Your task to perform on an android device: turn on bluetooth scan Image 0: 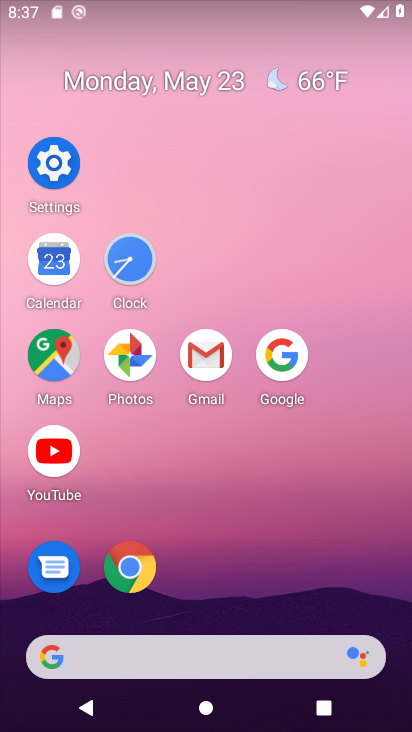
Step 0: click (34, 174)
Your task to perform on an android device: turn on bluetooth scan Image 1: 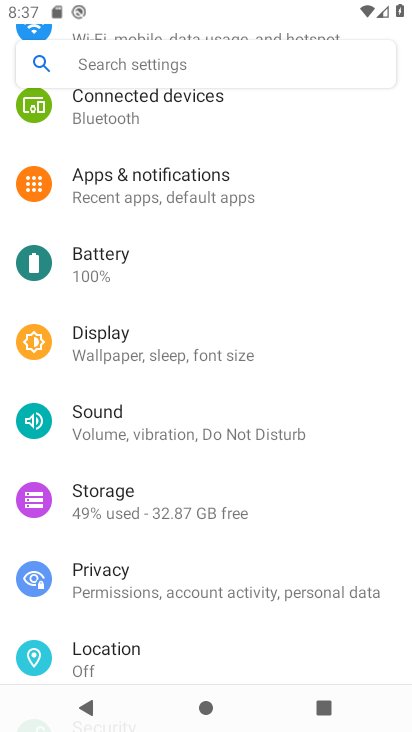
Step 1: click (223, 650)
Your task to perform on an android device: turn on bluetooth scan Image 2: 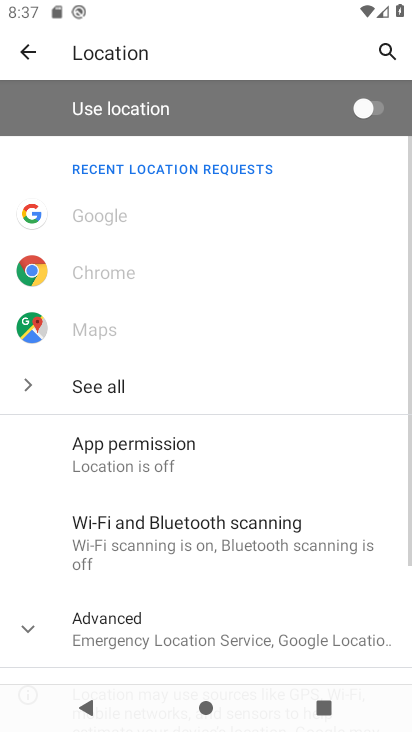
Step 2: click (291, 527)
Your task to perform on an android device: turn on bluetooth scan Image 3: 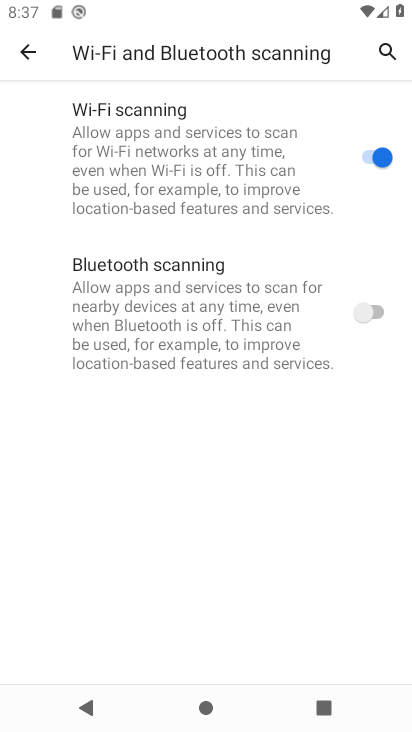
Step 3: click (356, 314)
Your task to perform on an android device: turn on bluetooth scan Image 4: 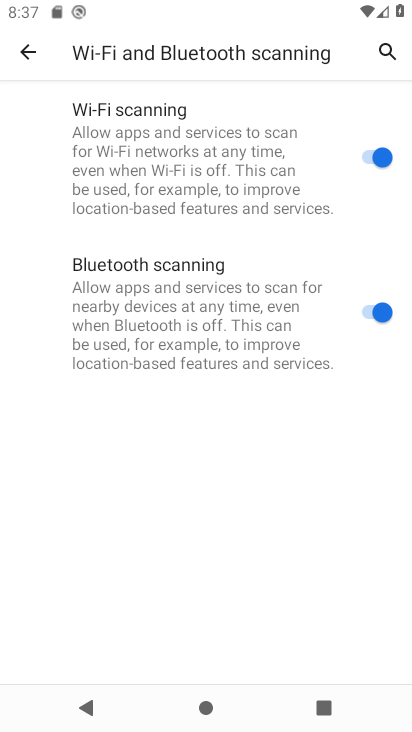
Step 4: task complete